Your task to perform on an android device: turn off smart reply in the gmail app Image 0: 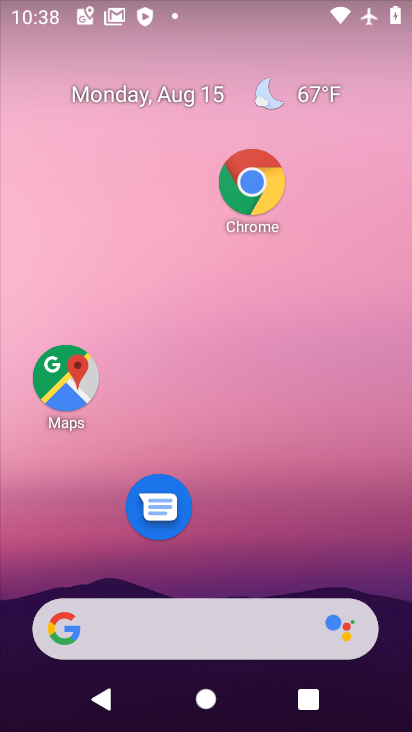
Step 0: drag from (297, 587) to (207, 17)
Your task to perform on an android device: turn off smart reply in the gmail app Image 1: 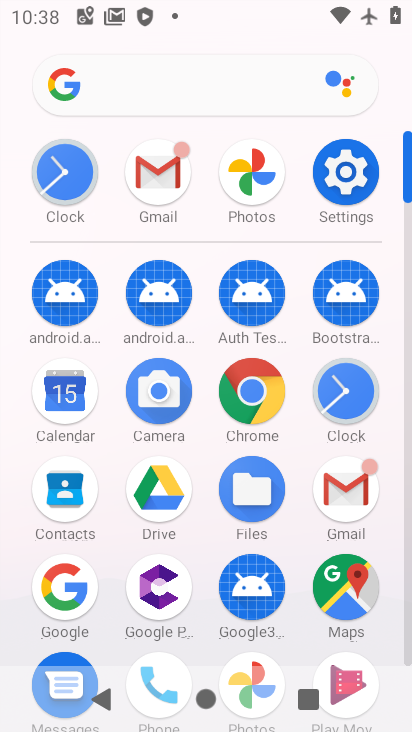
Step 1: click (166, 191)
Your task to perform on an android device: turn off smart reply in the gmail app Image 2: 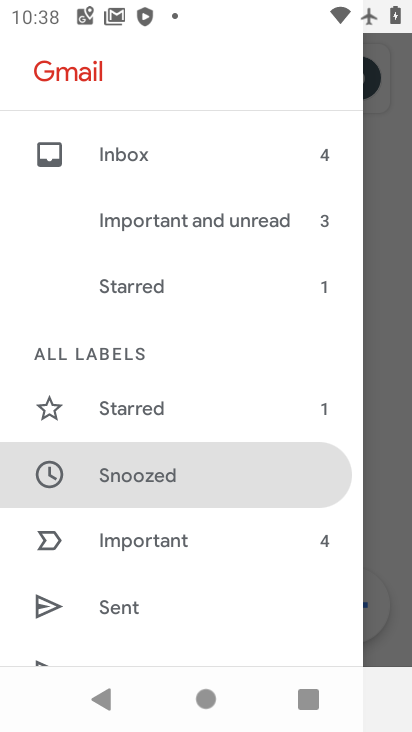
Step 2: task complete